Your task to perform on an android device: change the clock display to show seconds Image 0: 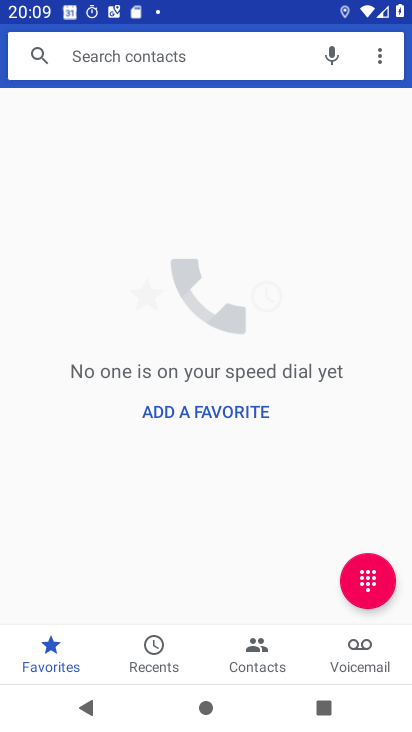
Step 0: press home button
Your task to perform on an android device: change the clock display to show seconds Image 1: 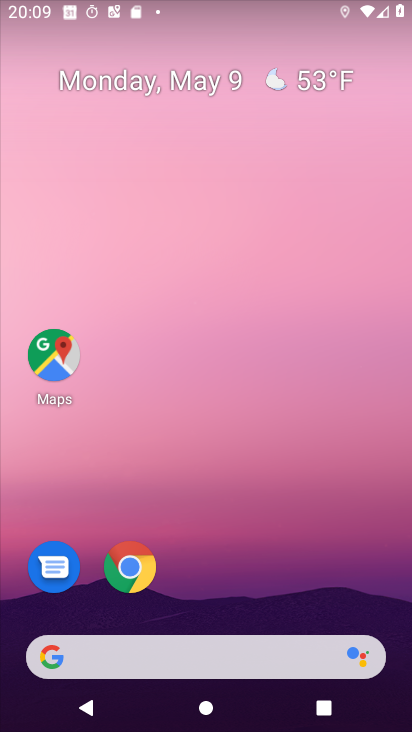
Step 1: drag from (291, 584) to (208, 4)
Your task to perform on an android device: change the clock display to show seconds Image 2: 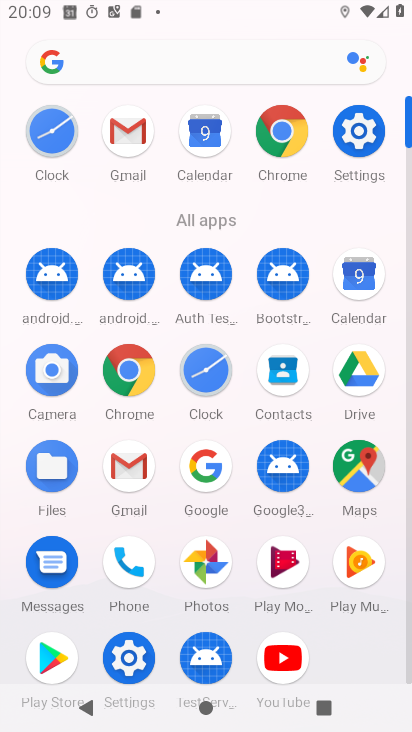
Step 2: click (60, 143)
Your task to perform on an android device: change the clock display to show seconds Image 3: 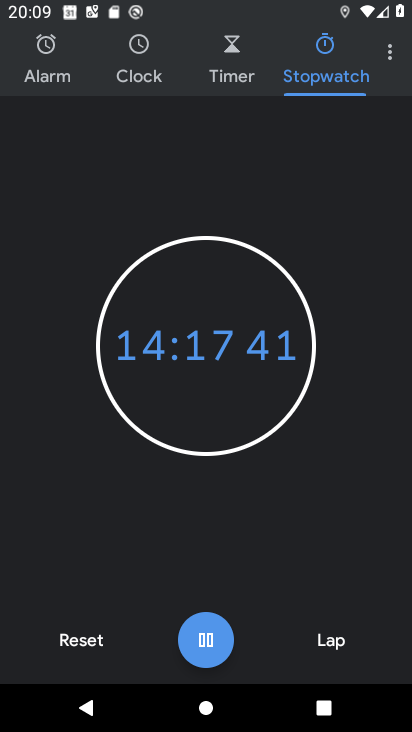
Step 3: click (387, 53)
Your task to perform on an android device: change the clock display to show seconds Image 4: 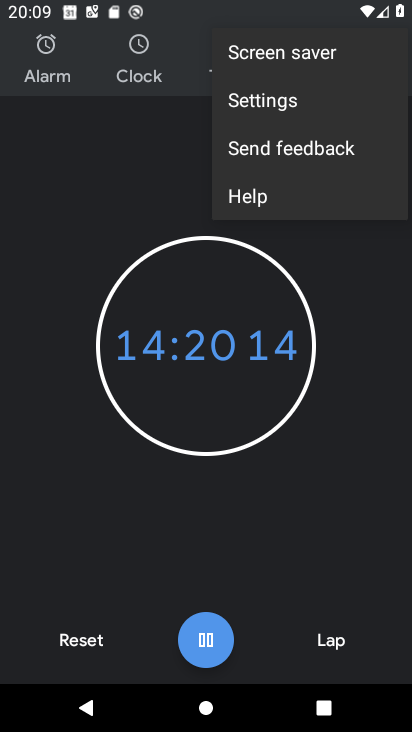
Step 4: click (338, 106)
Your task to perform on an android device: change the clock display to show seconds Image 5: 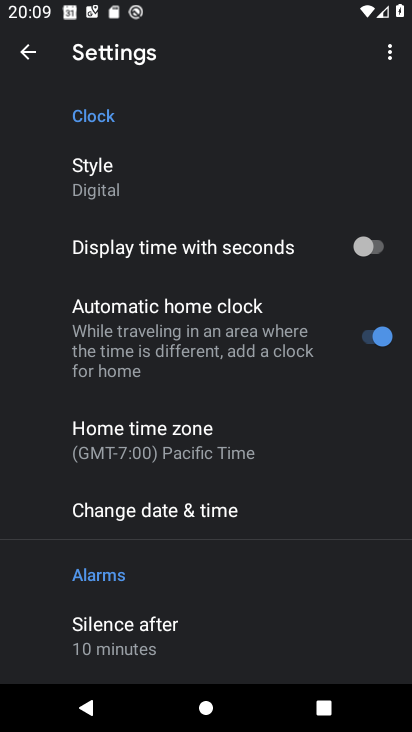
Step 5: click (369, 235)
Your task to perform on an android device: change the clock display to show seconds Image 6: 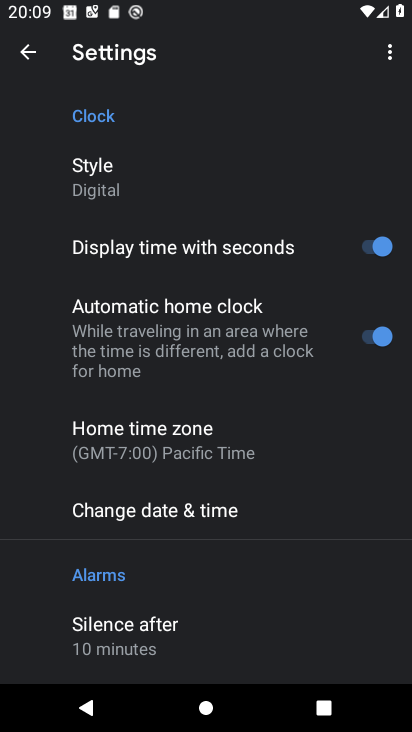
Step 6: task complete